Your task to perform on an android device: turn off airplane mode Image 0: 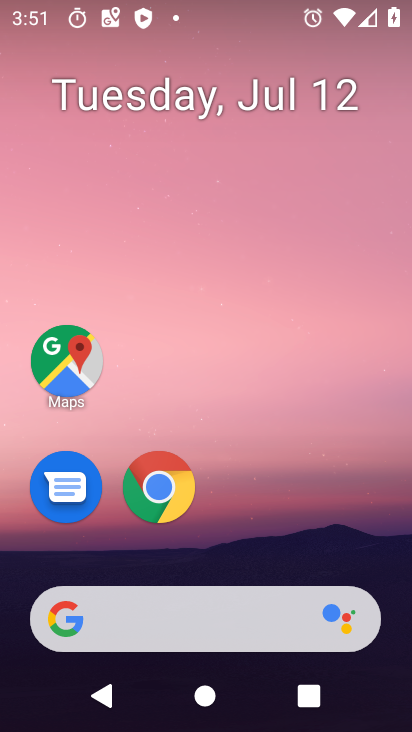
Step 0: drag from (186, 589) to (236, 215)
Your task to perform on an android device: turn off airplane mode Image 1: 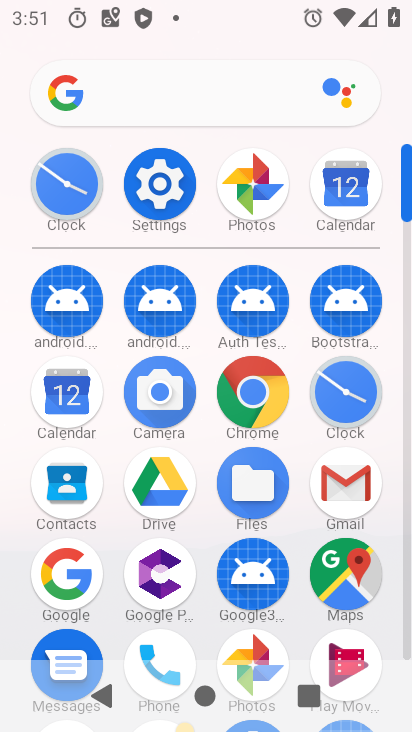
Step 1: click (162, 197)
Your task to perform on an android device: turn off airplane mode Image 2: 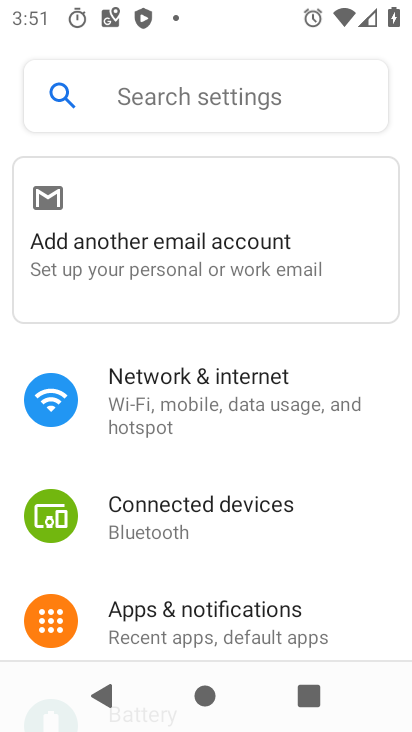
Step 2: click (169, 410)
Your task to perform on an android device: turn off airplane mode Image 3: 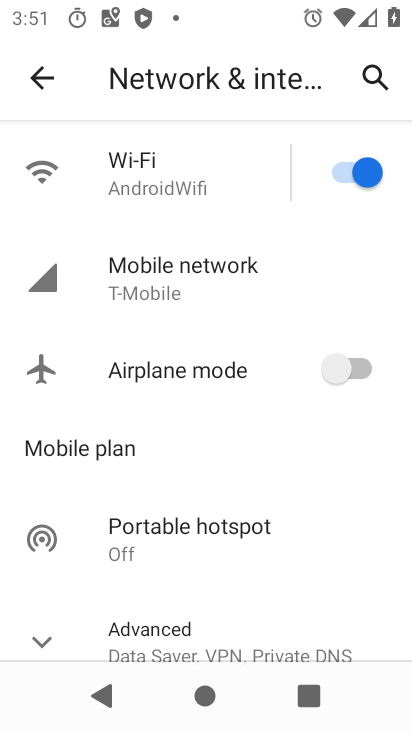
Step 3: task complete